Your task to perform on an android device: Go to ESPN.com Image 0: 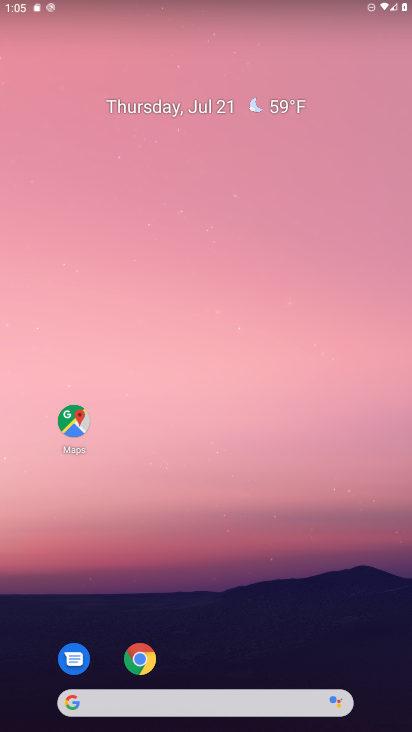
Step 0: click (152, 658)
Your task to perform on an android device: Go to ESPN.com Image 1: 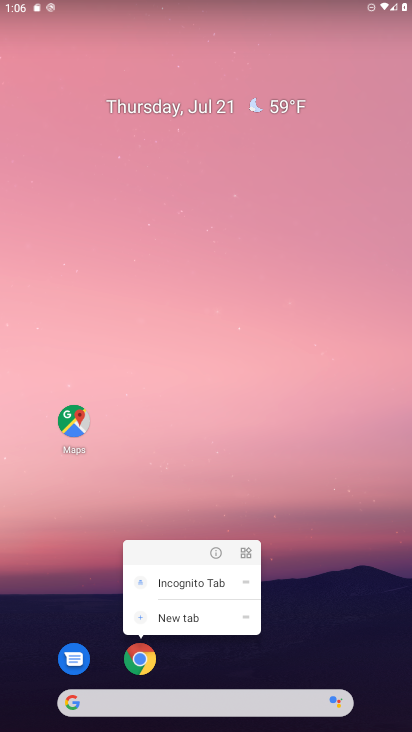
Step 1: click (145, 655)
Your task to perform on an android device: Go to ESPN.com Image 2: 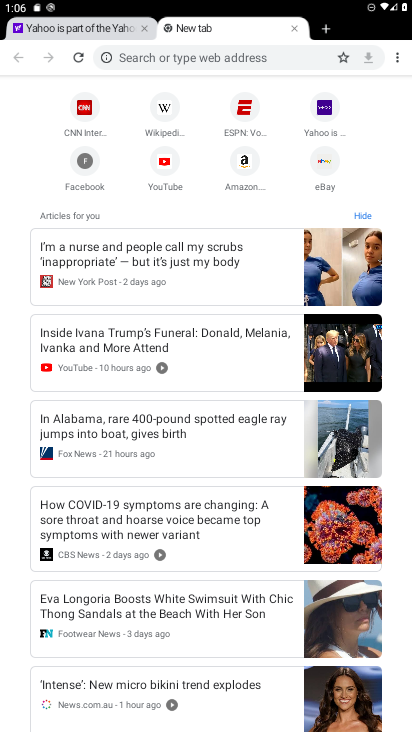
Step 2: click (246, 112)
Your task to perform on an android device: Go to ESPN.com Image 3: 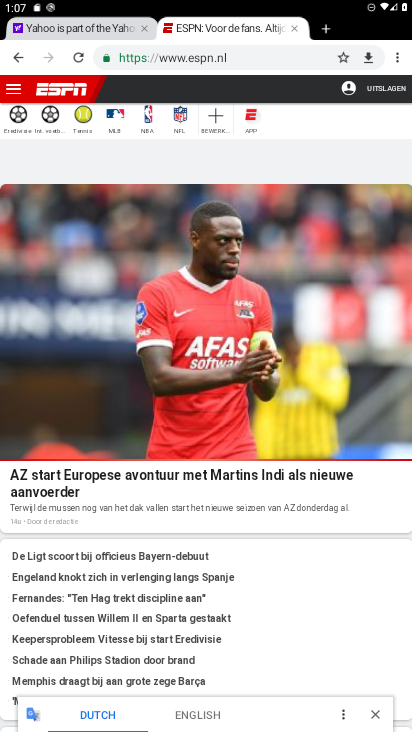
Step 3: task complete